Your task to perform on an android device: Do I have any events this weekend? Image 0: 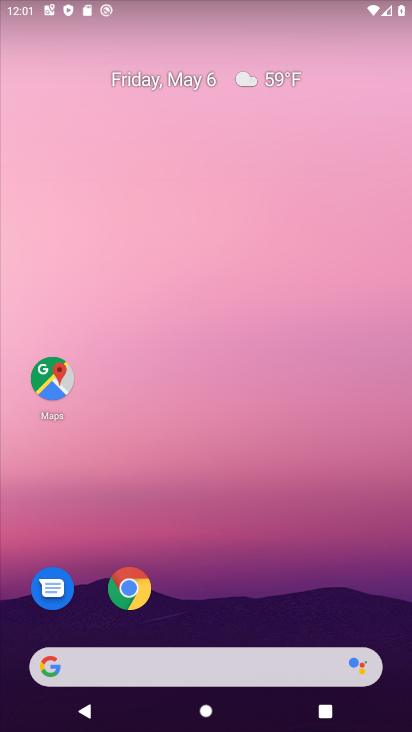
Step 0: drag from (241, 564) to (303, 29)
Your task to perform on an android device: Do I have any events this weekend? Image 1: 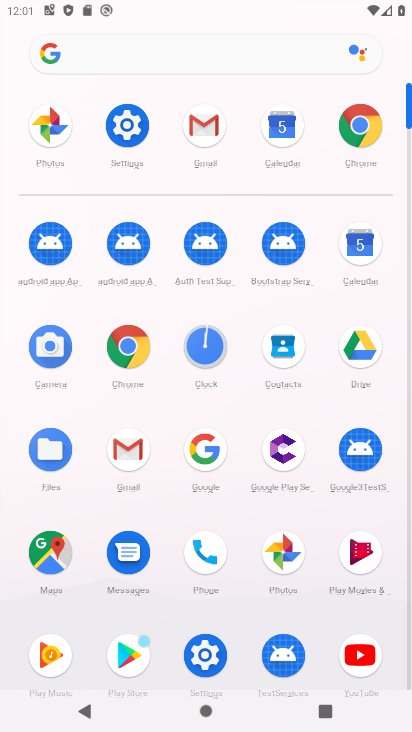
Step 1: click (282, 126)
Your task to perform on an android device: Do I have any events this weekend? Image 2: 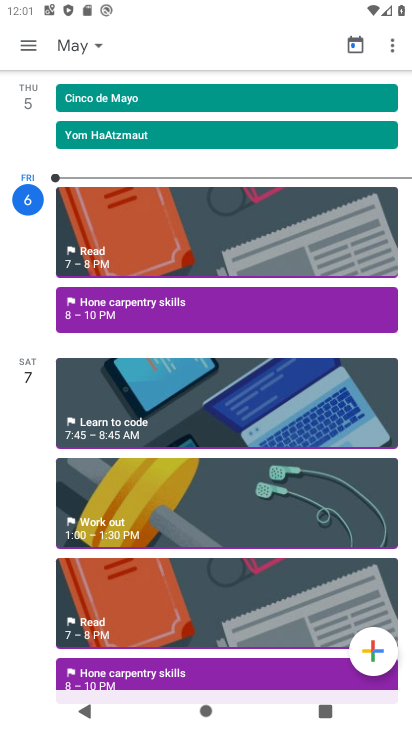
Step 2: click (23, 43)
Your task to perform on an android device: Do I have any events this weekend? Image 3: 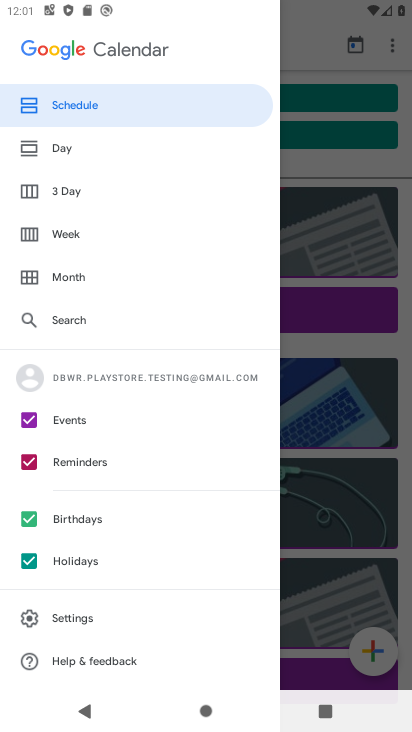
Step 3: click (61, 226)
Your task to perform on an android device: Do I have any events this weekend? Image 4: 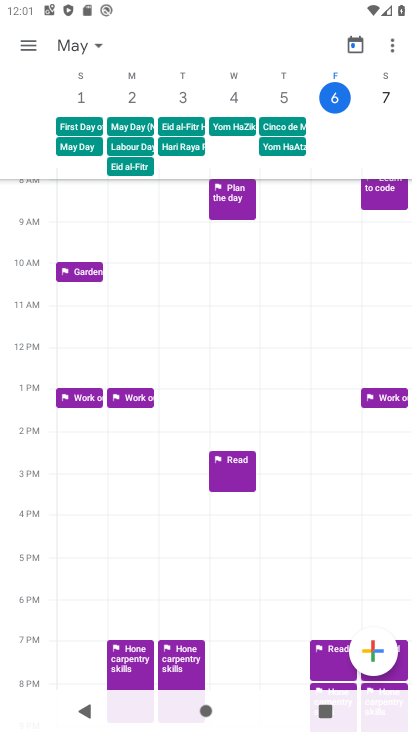
Step 4: click (382, 89)
Your task to perform on an android device: Do I have any events this weekend? Image 5: 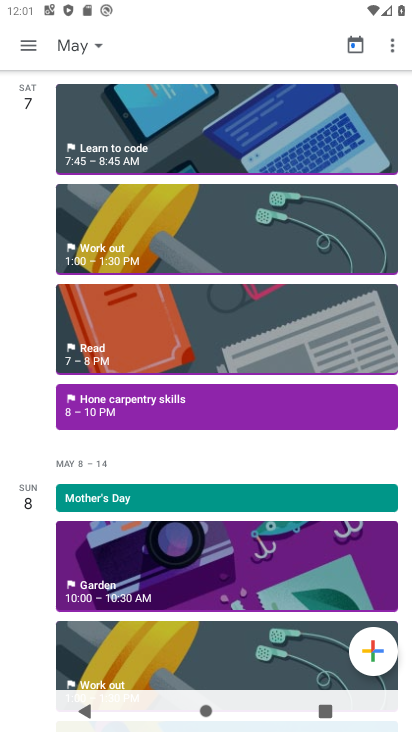
Step 5: task complete